Your task to perform on an android device: Open location settings Image 0: 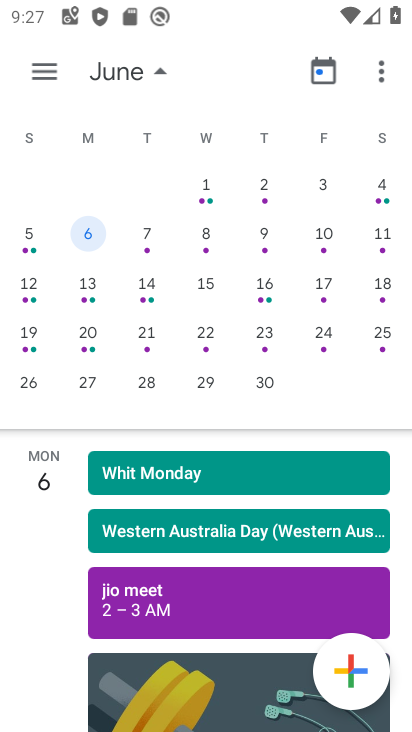
Step 0: press home button
Your task to perform on an android device: Open location settings Image 1: 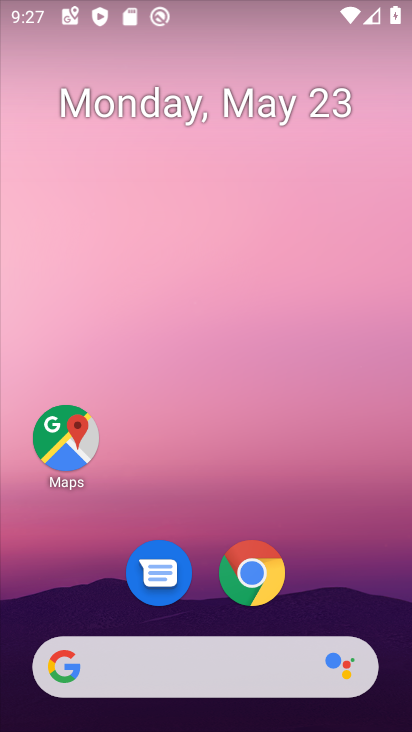
Step 1: drag from (383, 579) to (377, 301)
Your task to perform on an android device: Open location settings Image 2: 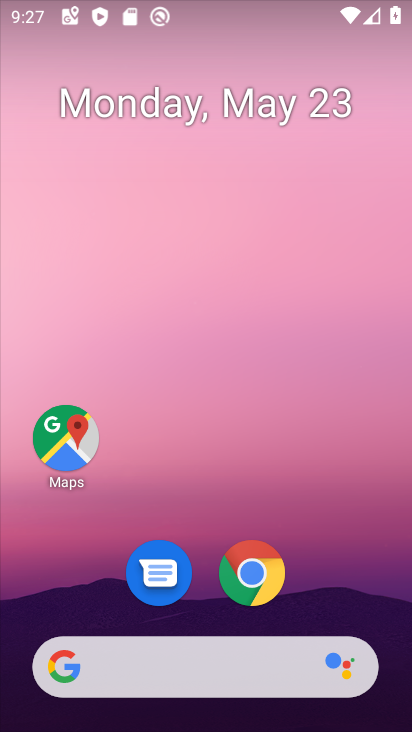
Step 2: drag from (393, 608) to (409, 340)
Your task to perform on an android device: Open location settings Image 3: 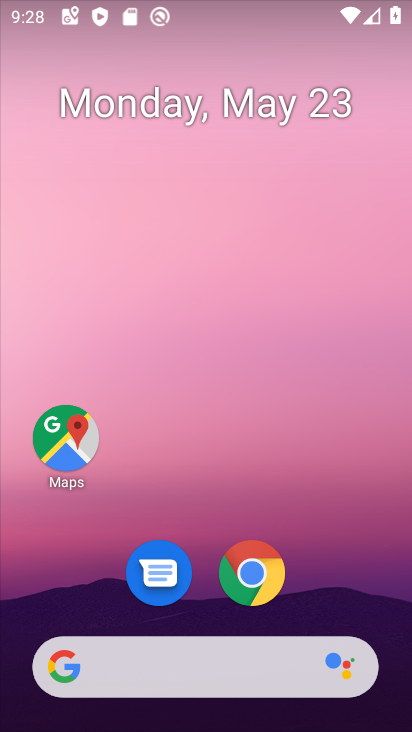
Step 3: drag from (375, 584) to (360, 158)
Your task to perform on an android device: Open location settings Image 4: 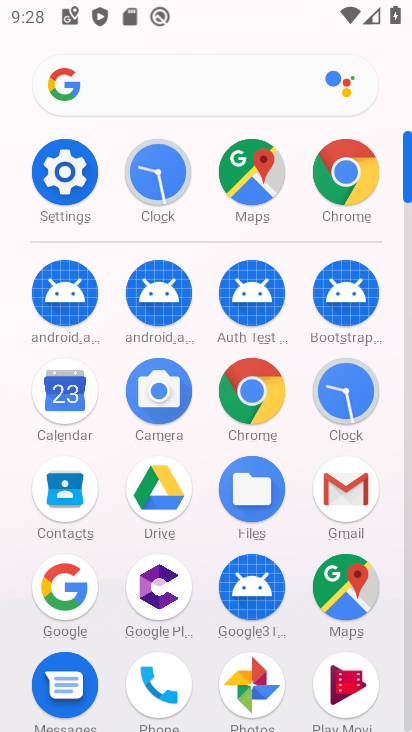
Step 4: click (84, 164)
Your task to perform on an android device: Open location settings Image 5: 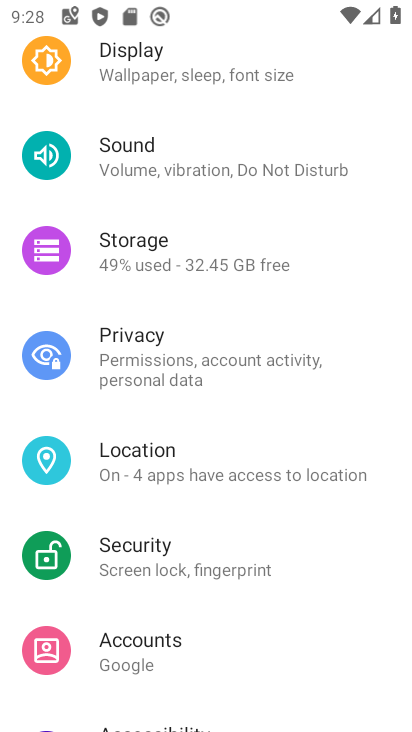
Step 5: drag from (340, 542) to (360, 409)
Your task to perform on an android device: Open location settings Image 6: 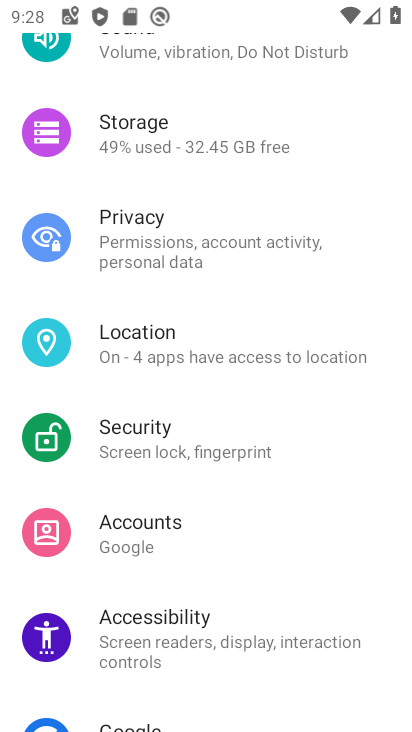
Step 6: drag from (375, 559) to (374, 434)
Your task to perform on an android device: Open location settings Image 7: 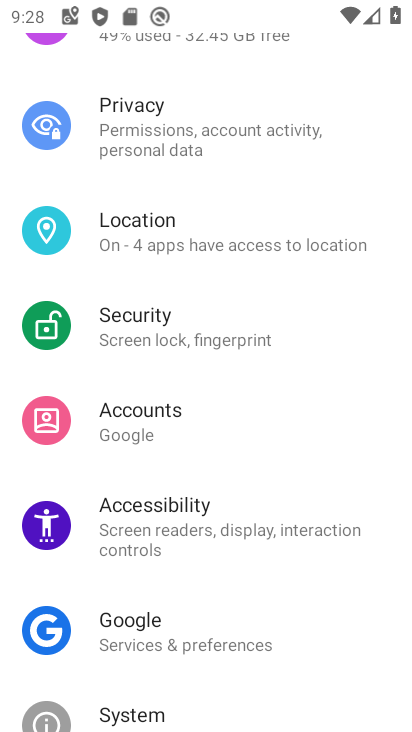
Step 7: drag from (365, 580) to (353, 479)
Your task to perform on an android device: Open location settings Image 8: 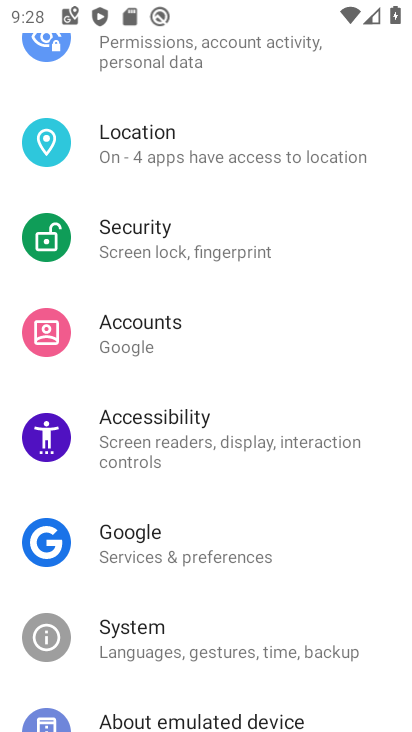
Step 8: drag from (347, 595) to (359, 468)
Your task to perform on an android device: Open location settings Image 9: 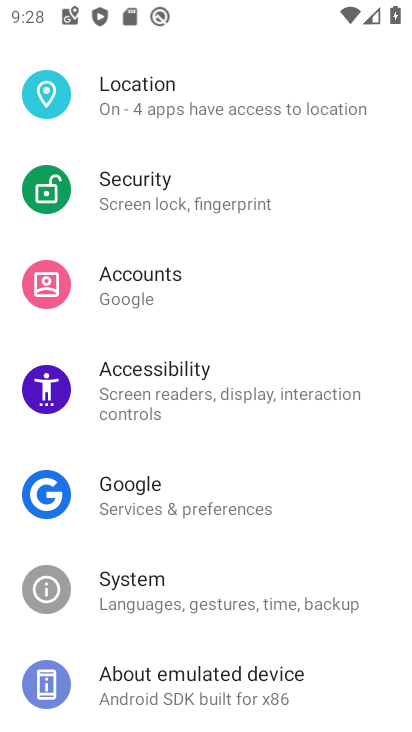
Step 9: drag from (360, 335) to (353, 438)
Your task to perform on an android device: Open location settings Image 10: 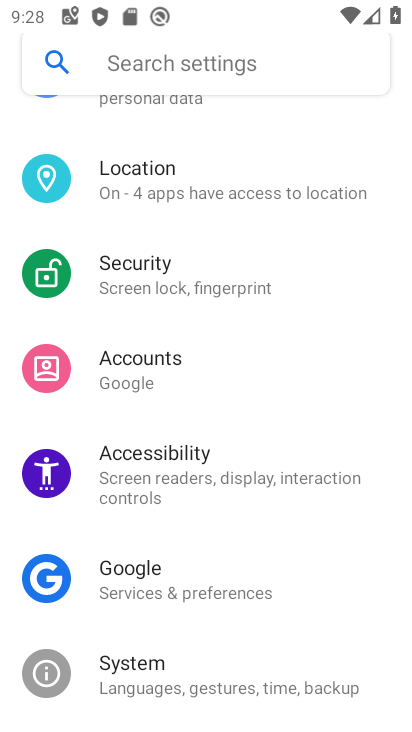
Step 10: drag from (352, 328) to (347, 450)
Your task to perform on an android device: Open location settings Image 11: 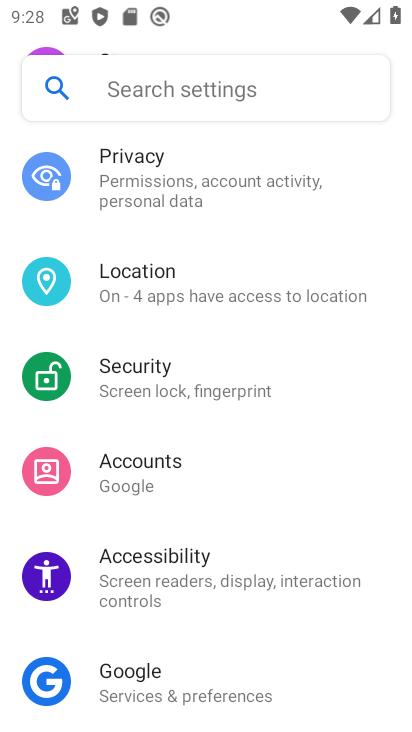
Step 11: drag from (345, 353) to (352, 469)
Your task to perform on an android device: Open location settings Image 12: 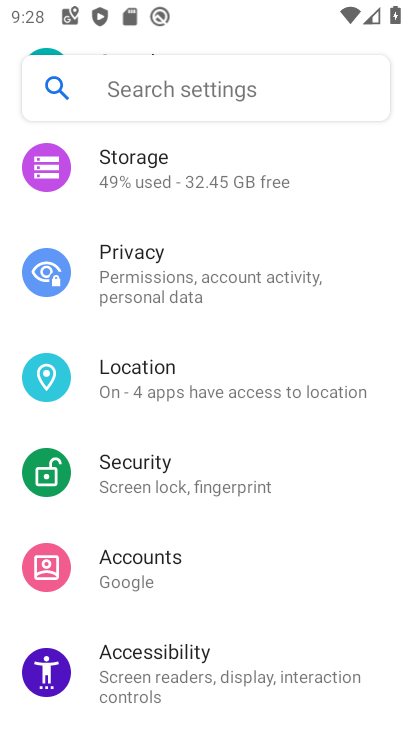
Step 12: drag from (375, 285) to (375, 405)
Your task to perform on an android device: Open location settings Image 13: 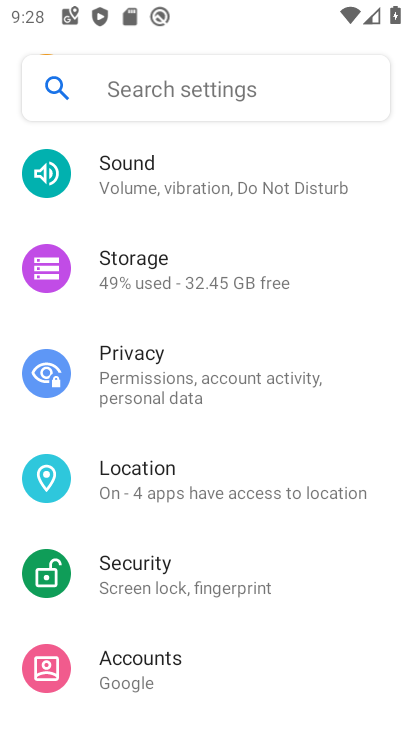
Step 13: click (268, 495)
Your task to perform on an android device: Open location settings Image 14: 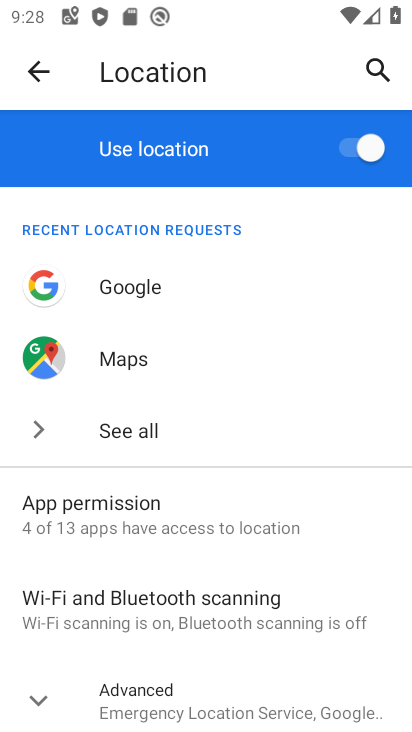
Step 14: task complete